Your task to perform on an android device: turn on priority inbox in the gmail app Image 0: 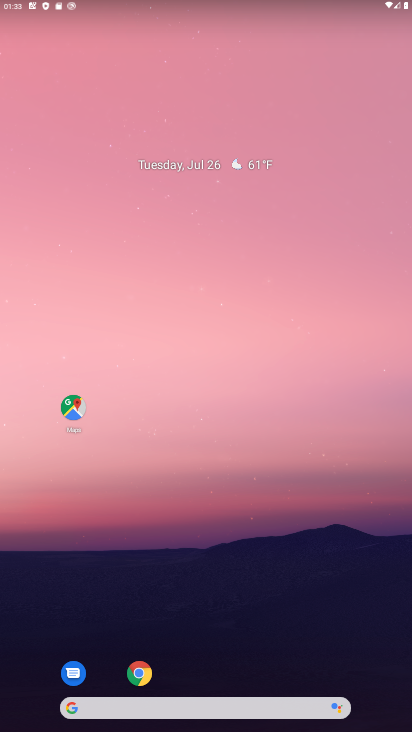
Step 0: drag from (219, 728) to (242, 104)
Your task to perform on an android device: turn on priority inbox in the gmail app Image 1: 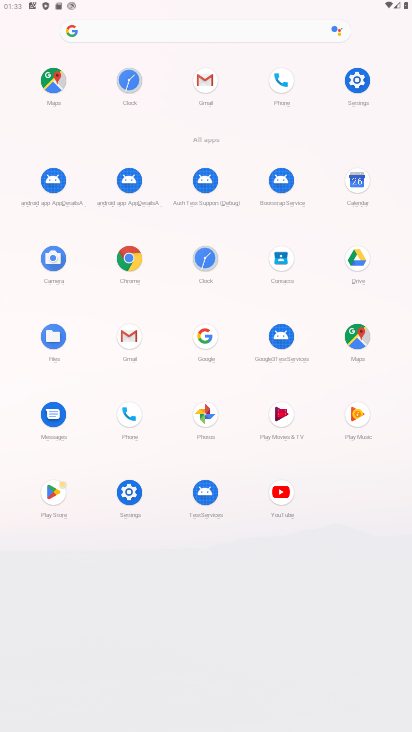
Step 1: click (129, 334)
Your task to perform on an android device: turn on priority inbox in the gmail app Image 2: 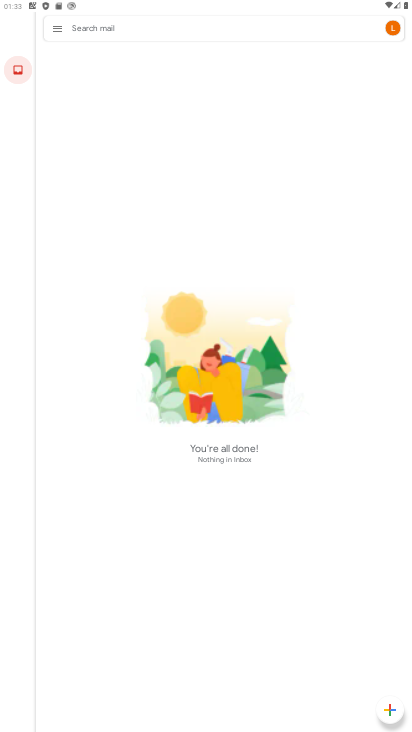
Step 2: click (58, 26)
Your task to perform on an android device: turn on priority inbox in the gmail app Image 3: 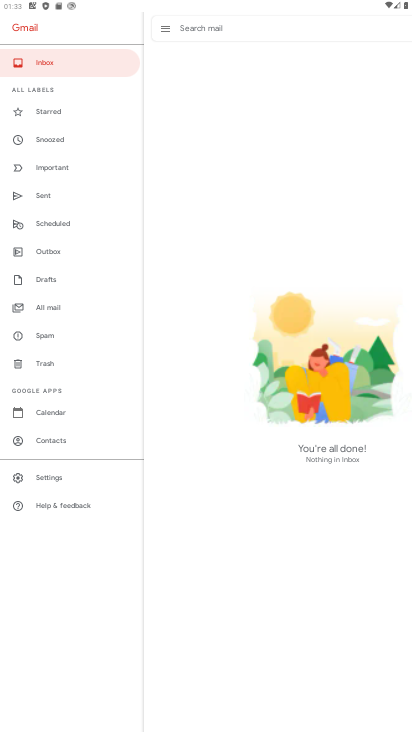
Step 3: click (48, 475)
Your task to perform on an android device: turn on priority inbox in the gmail app Image 4: 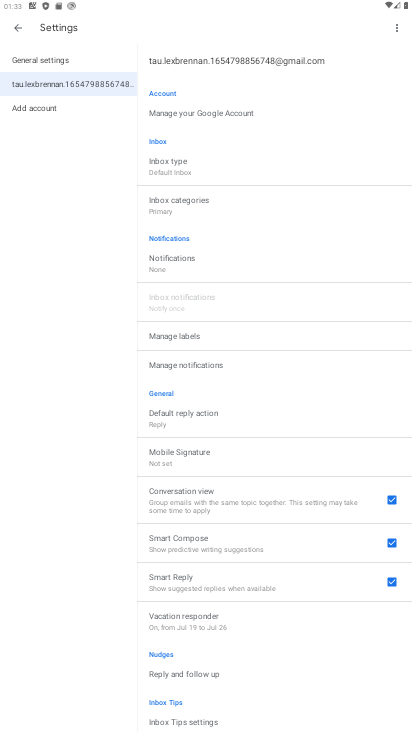
Step 4: click (163, 166)
Your task to perform on an android device: turn on priority inbox in the gmail app Image 5: 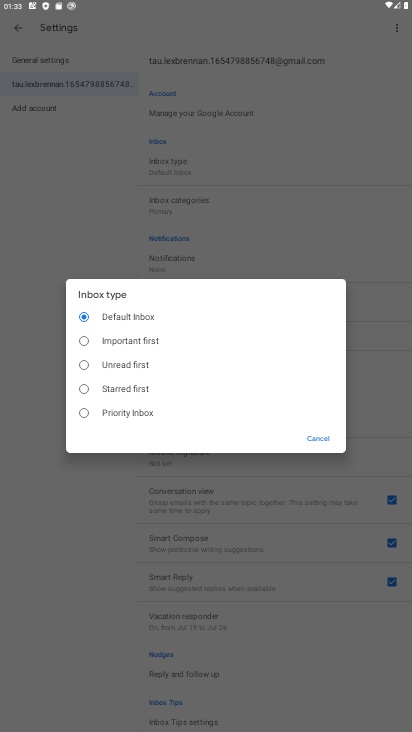
Step 5: click (84, 414)
Your task to perform on an android device: turn on priority inbox in the gmail app Image 6: 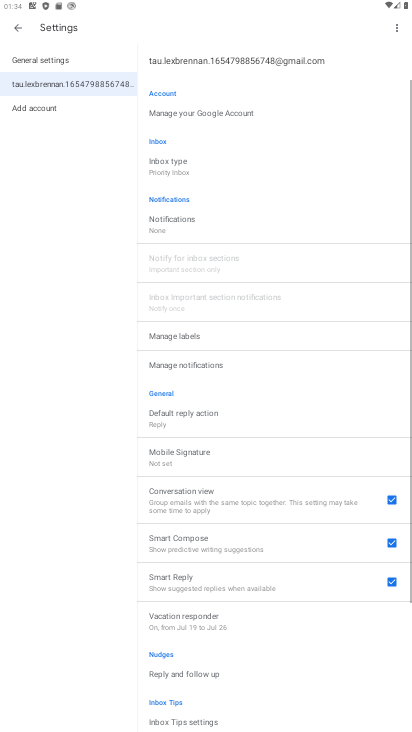
Step 6: task complete